Your task to perform on an android device: Is it going to rain today? Image 0: 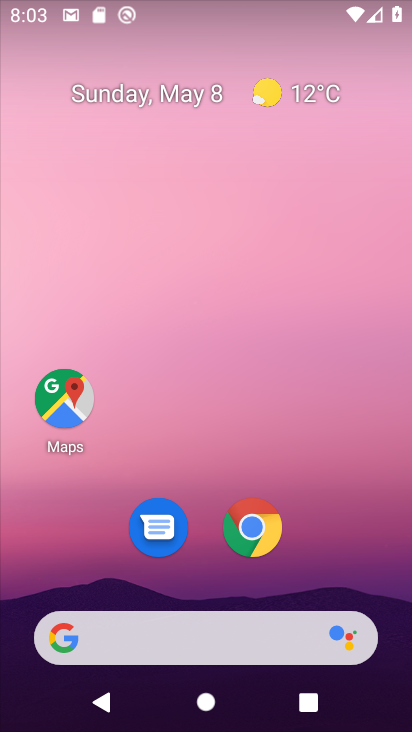
Step 0: drag from (316, 560) to (313, 117)
Your task to perform on an android device: Is it going to rain today? Image 1: 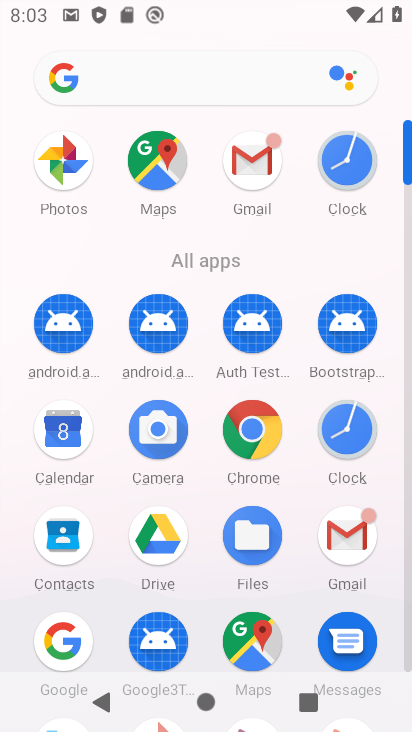
Step 1: click (242, 428)
Your task to perform on an android device: Is it going to rain today? Image 2: 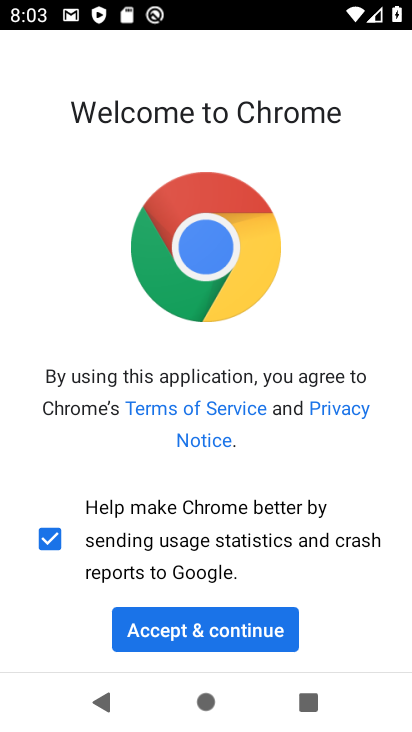
Step 2: click (227, 623)
Your task to perform on an android device: Is it going to rain today? Image 3: 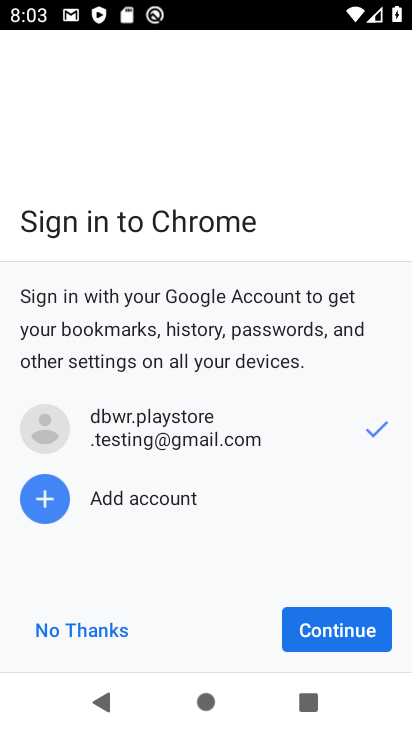
Step 3: click (327, 626)
Your task to perform on an android device: Is it going to rain today? Image 4: 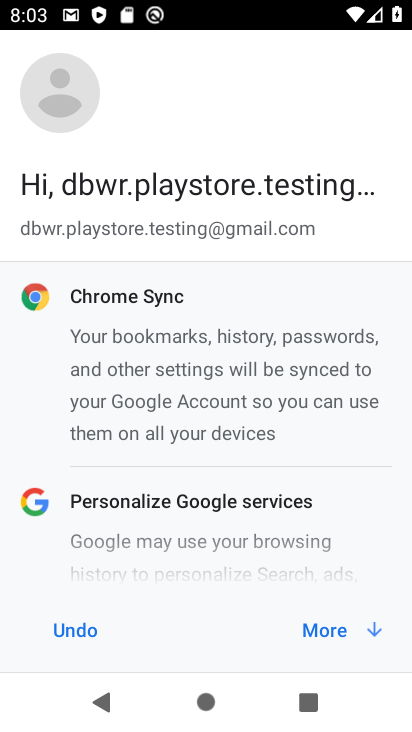
Step 4: click (319, 626)
Your task to perform on an android device: Is it going to rain today? Image 5: 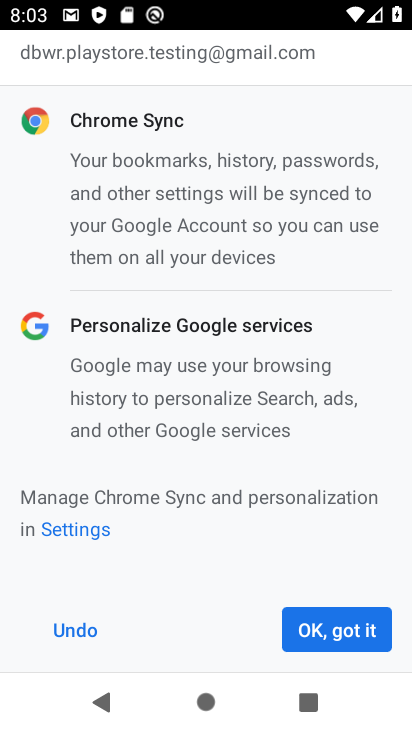
Step 5: click (319, 628)
Your task to perform on an android device: Is it going to rain today? Image 6: 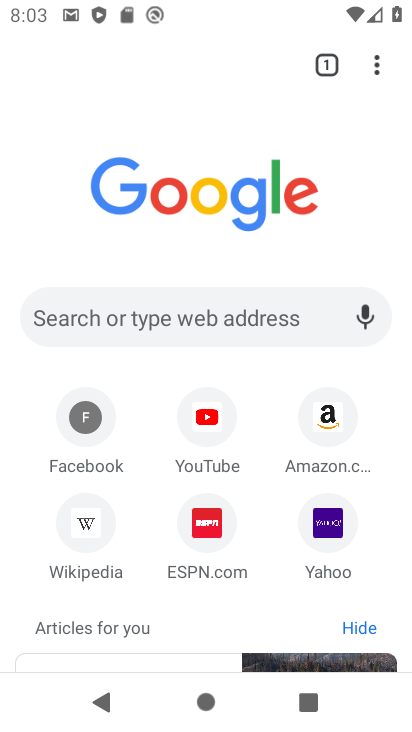
Step 6: click (241, 309)
Your task to perform on an android device: Is it going to rain today? Image 7: 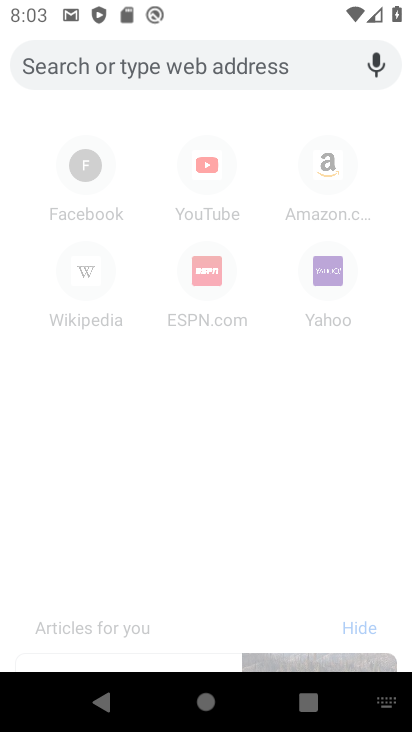
Step 7: type "Is it going to rain today?"
Your task to perform on an android device: Is it going to rain today? Image 8: 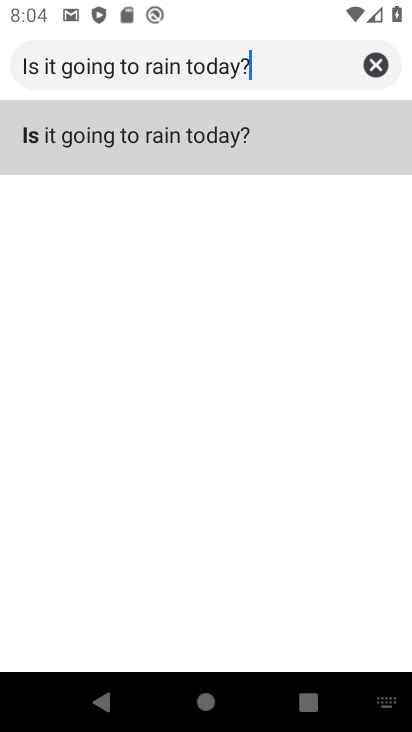
Step 8: click (241, 124)
Your task to perform on an android device: Is it going to rain today? Image 9: 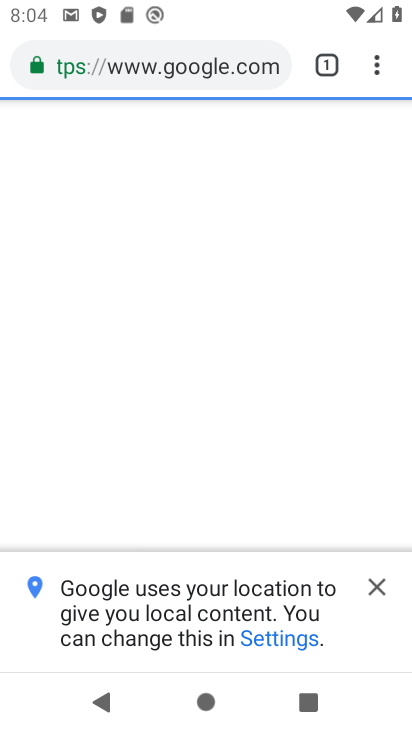
Step 9: click (382, 584)
Your task to perform on an android device: Is it going to rain today? Image 10: 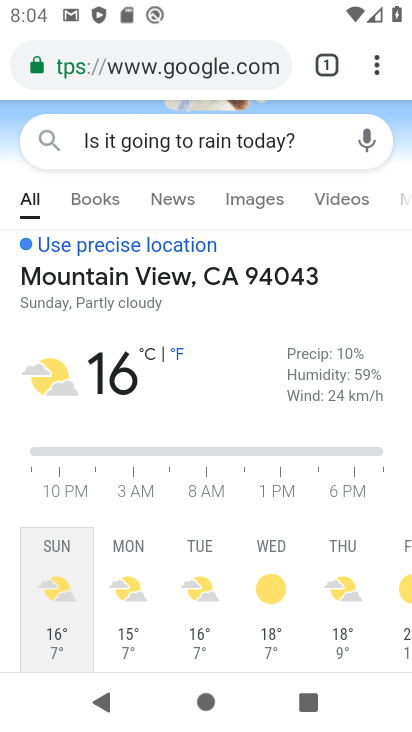
Step 10: task complete